Your task to perform on an android device: Open Google Image 0: 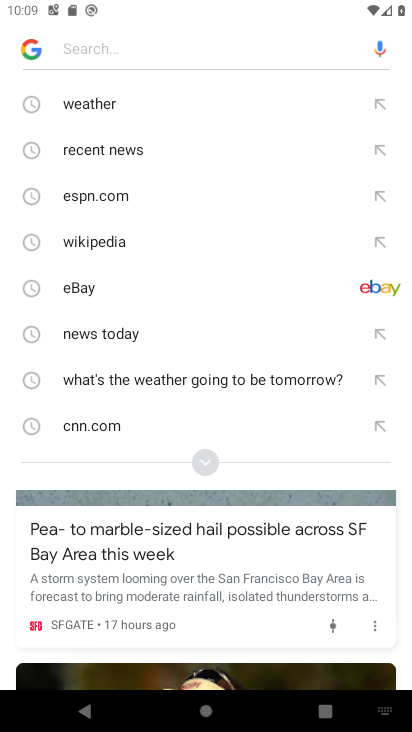
Step 0: press home button
Your task to perform on an android device: Open Google Image 1: 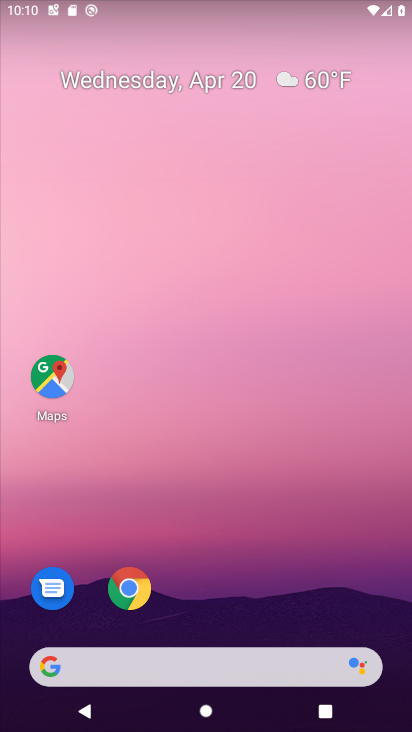
Step 1: drag from (170, 664) to (248, 122)
Your task to perform on an android device: Open Google Image 2: 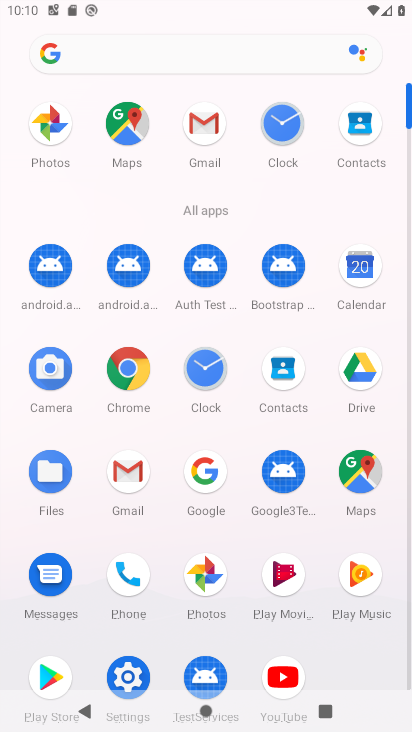
Step 2: click (199, 482)
Your task to perform on an android device: Open Google Image 3: 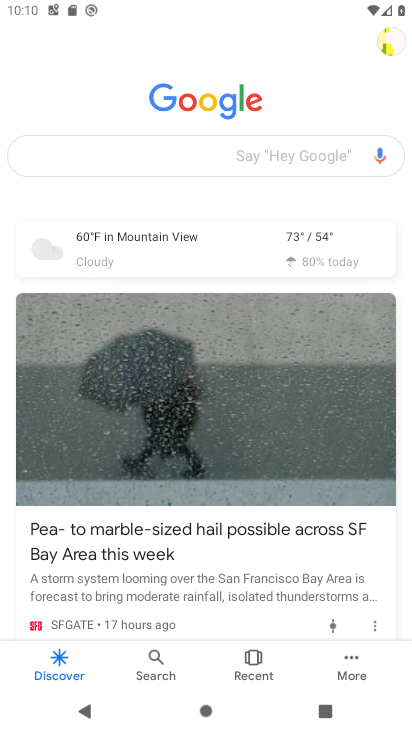
Step 3: task complete